Your task to perform on an android device: Open Chrome and go to the settings page Image 0: 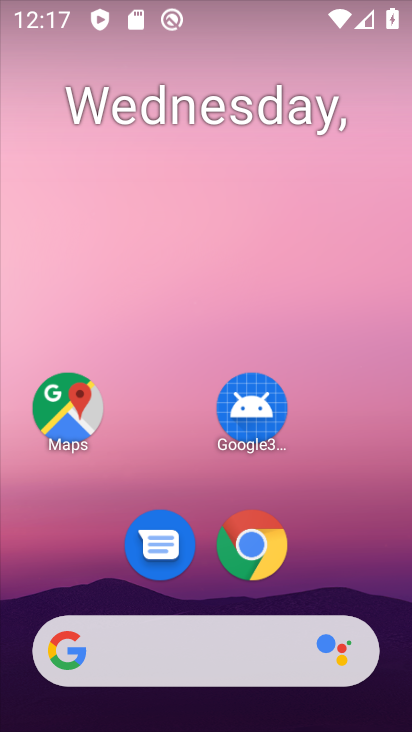
Step 0: click (260, 557)
Your task to perform on an android device: Open Chrome and go to the settings page Image 1: 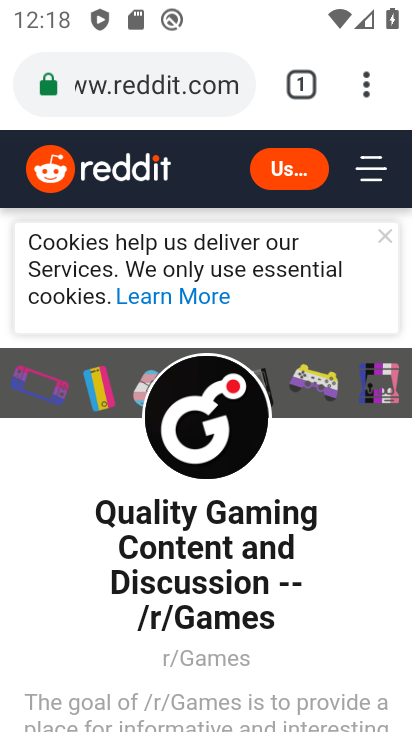
Step 1: click (355, 83)
Your task to perform on an android device: Open Chrome and go to the settings page Image 2: 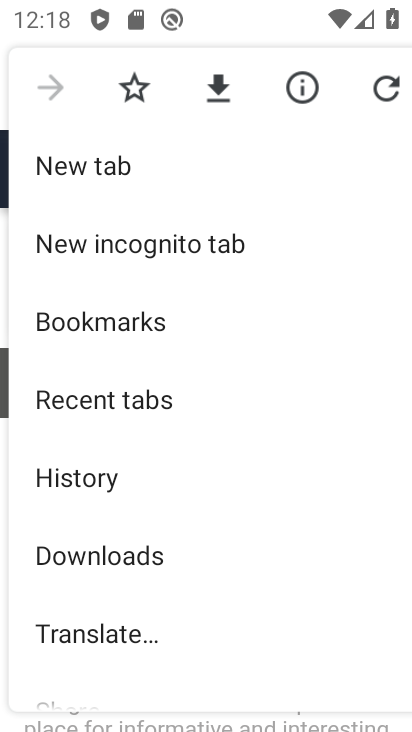
Step 2: drag from (366, 457) to (316, 240)
Your task to perform on an android device: Open Chrome and go to the settings page Image 3: 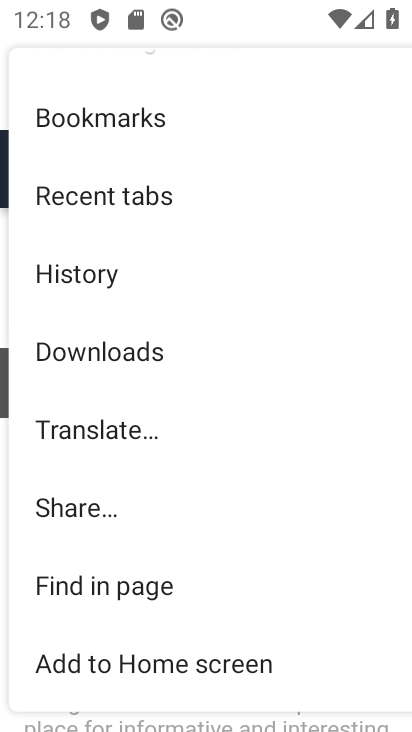
Step 3: drag from (211, 559) to (177, 360)
Your task to perform on an android device: Open Chrome and go to the settings page Image 4: 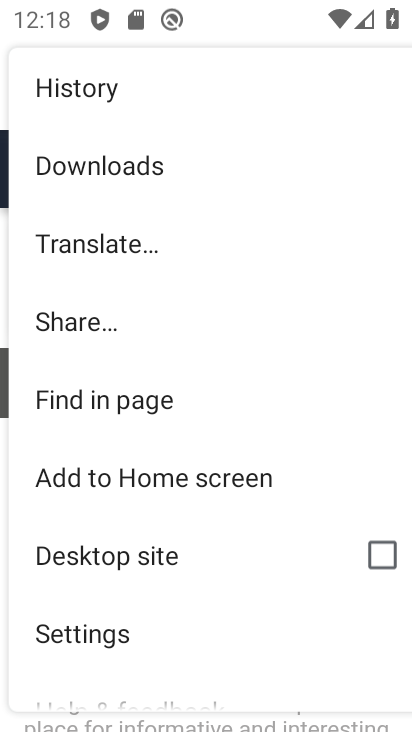
Step 4: click (151, 629)
Your task to perform on an android device: Open Chrome and go to the settings page Image 5: 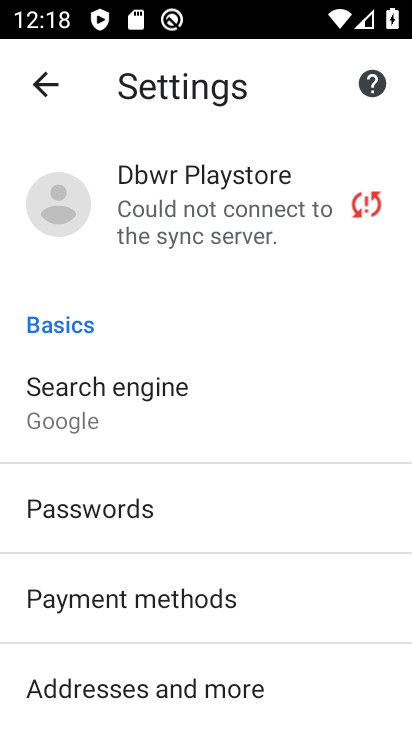
Step 5: task complete